Your task to perform on an android device: Open calendar and show me the second week of next month Image 0: 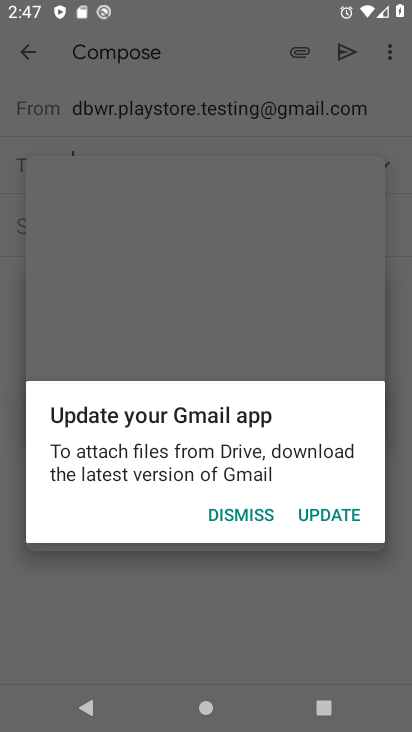
Step 0: press home button
Your task to perform on an android device: Open calendar and show me the second week of next month Image 1: 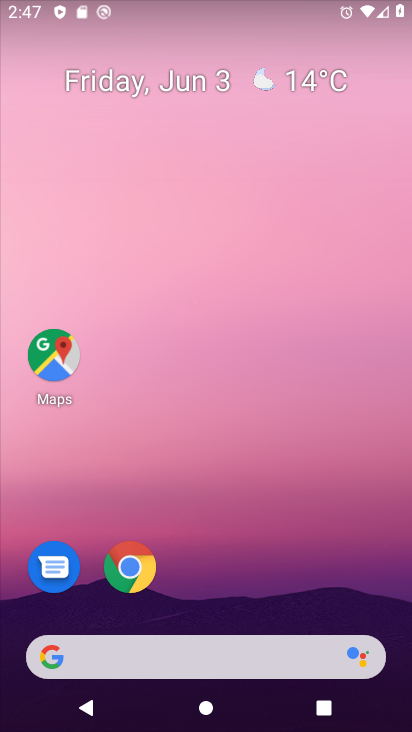
Step 1: drag from (259, 679) to (214, 44)
Your task to perform on an android device: Open calendar and show me the second week of next month Image 2: 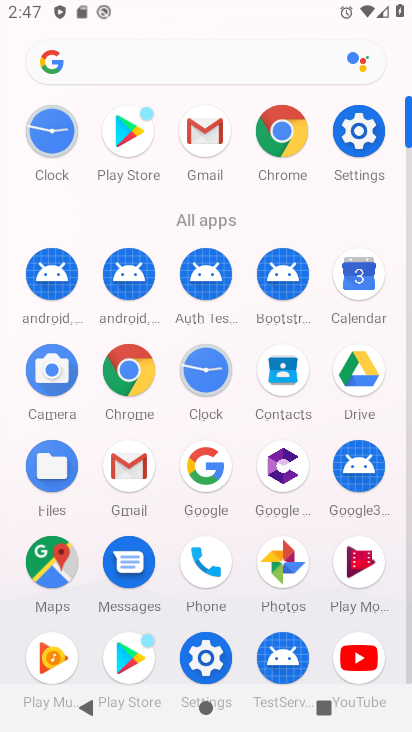
Step 2: click (333, 269)
Your task to perform on an android device: Open calendar and show me the second week of next month Image 3: 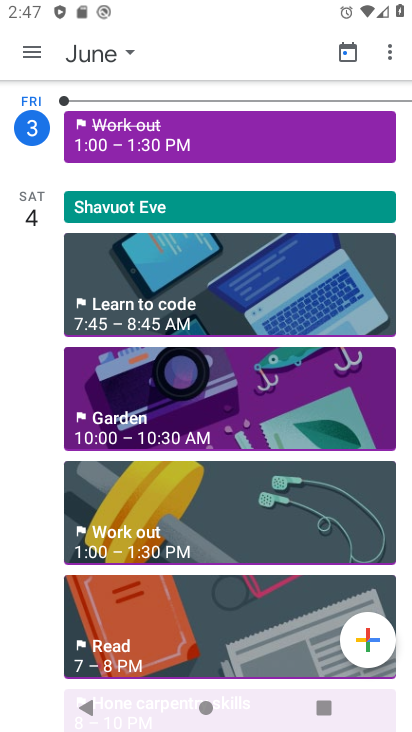
Step 3: click (44, 53)
Your task to perform on an android device: Open calendar and show me the second week of next month Image 4: 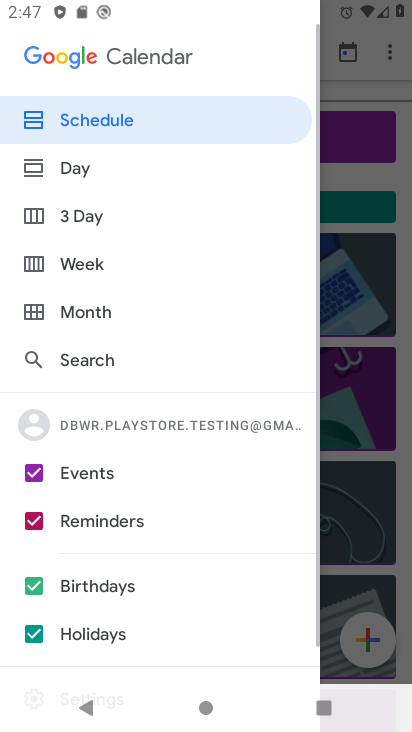
Step 4: click (93, 309)
Your task to perform on an android device: Open calendar and show me the second week of next month Image 5: 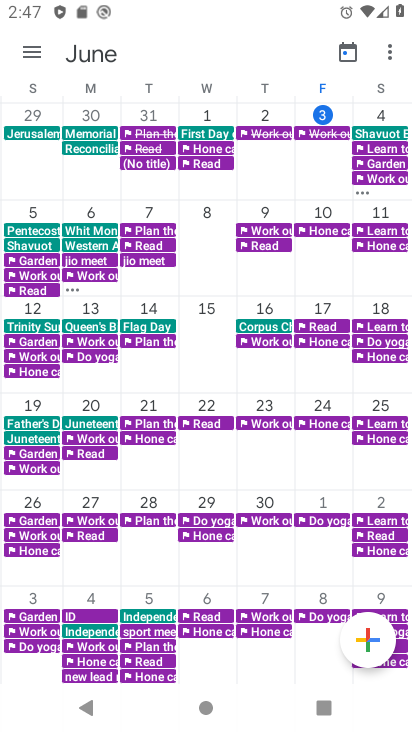
Step 5: drag from (351, 391) to (0, 259)
Your task to perform on an android device: Open calendar and show me the second week of next month Image 6: 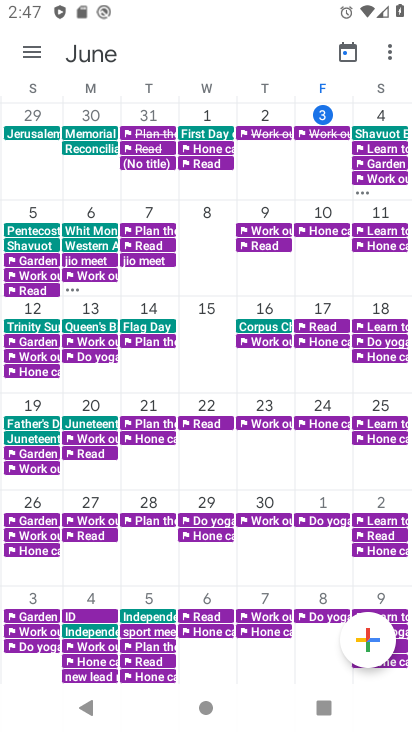
Step 6: drag from (393, 329) to (5, 324)
Your task to perform on an android device: Open calendar and show me the second week of next month Image 7: 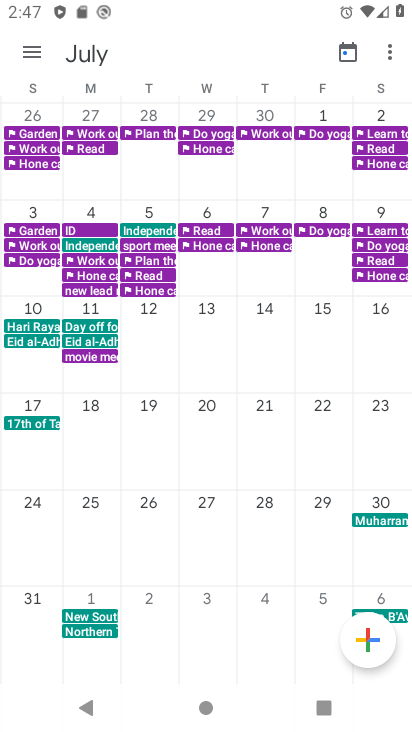
Step 7: click (42, 301)
Your task to perform on an android device: Open calendar and show me the second week of next month Image 8: 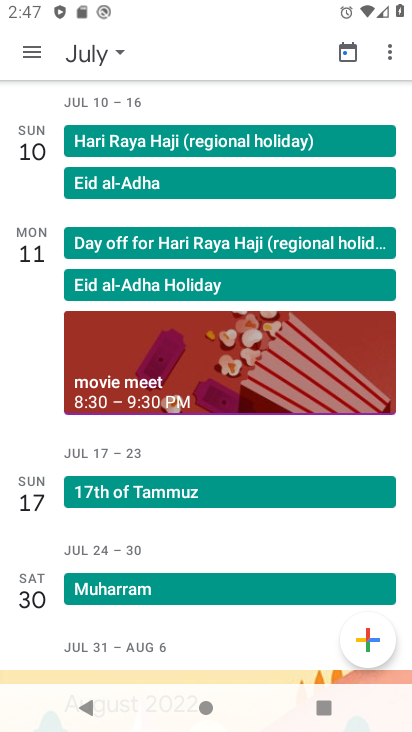
Step 8: task complete